Your task to perform on an android device: Go to battery settings Image 0: 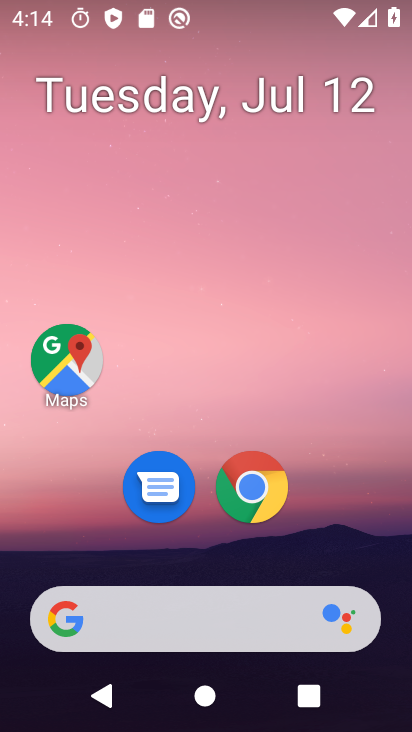
Step 0: drag from (206, 619) to (294, 83)
Your task to perform on an android device: Go to battery settings Image 1: 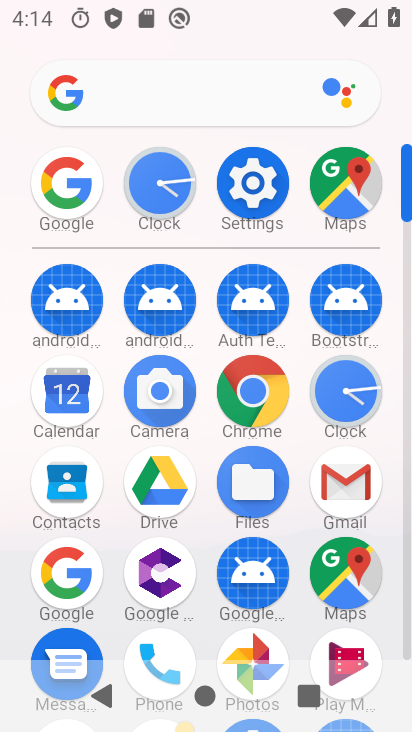
Step 1: click (255, 148)
Your task to perform on an android device: Go to battery settings Image 2: 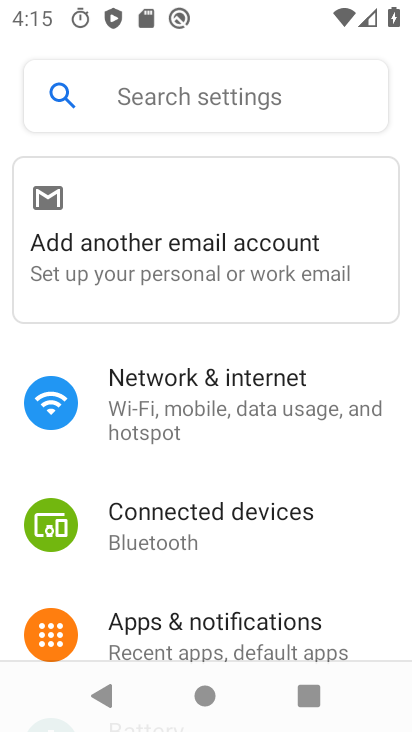
Step 2: drag from (197, 525) to (275, 49)
Your task to perform on an android device: Go to battery settings Image 3: 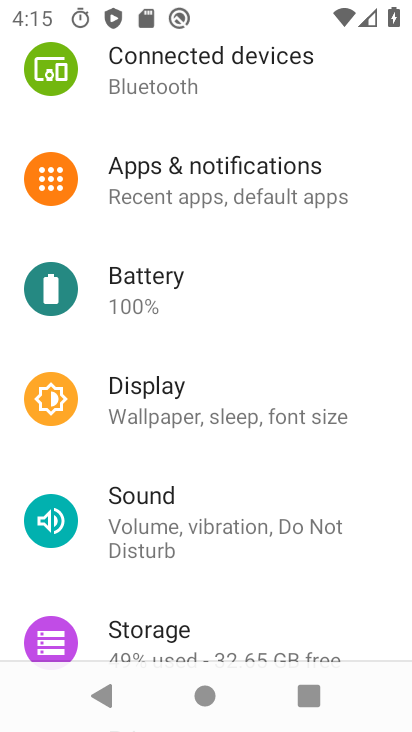
Step 3: click (173, 304)
Your task to perform on an android device: Go to battery settings Image 4: 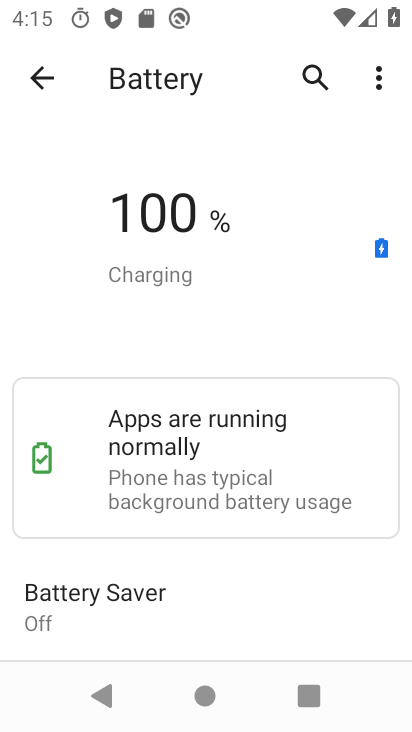
Step 4: task complete